Your task to perform on an android device: empty trash in google photos Image 0: 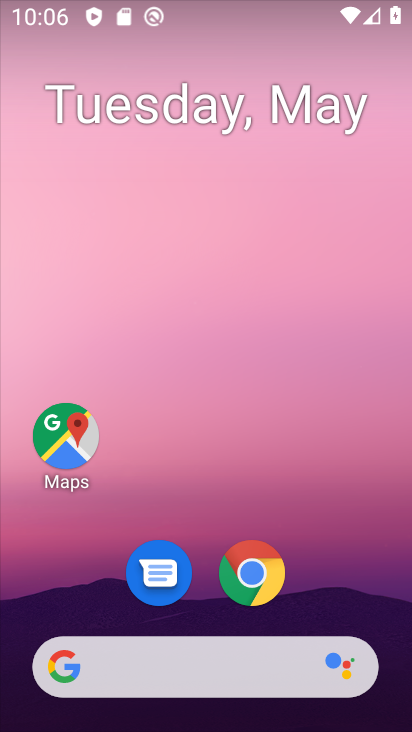
Step 0: drag from (131, 698) to (151, 7)
Your task to perform on an android device: empty trash in google photos Image 1: 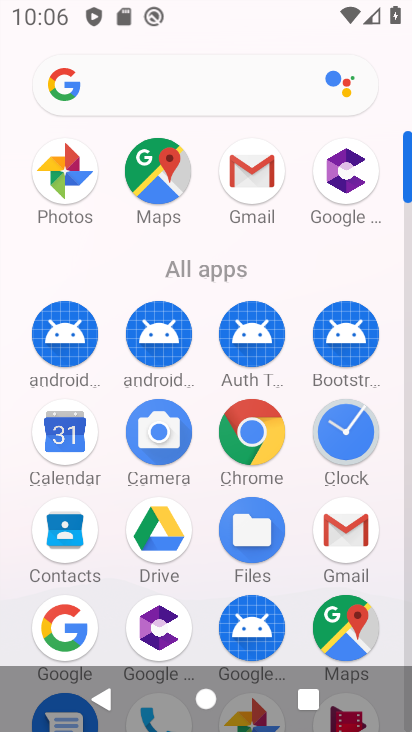
Step 1: drag from (208, 503) to (211, 250)
Your task to perform on an android device: empty trash in google photos Image 2: 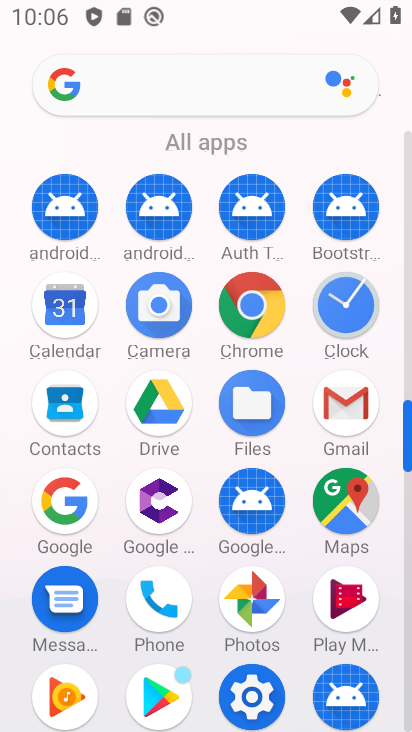
Step 2: click (248, 602)
Your task to perform on an android device: empty trash in google photos Image 3: 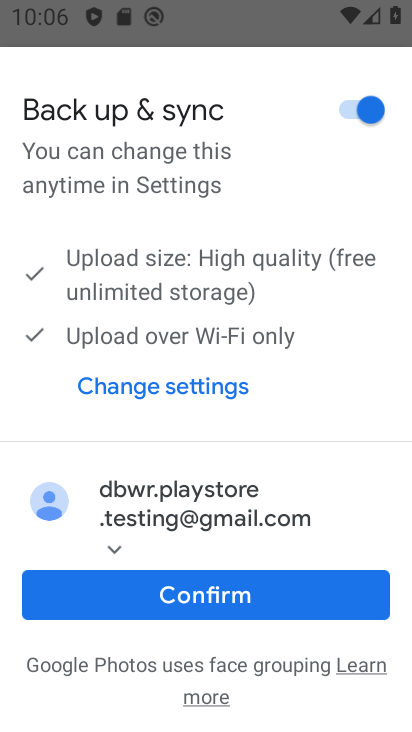
Step 3: click (149, 591)
Your task to perform on an android device: empty trash in google photos Image 4: 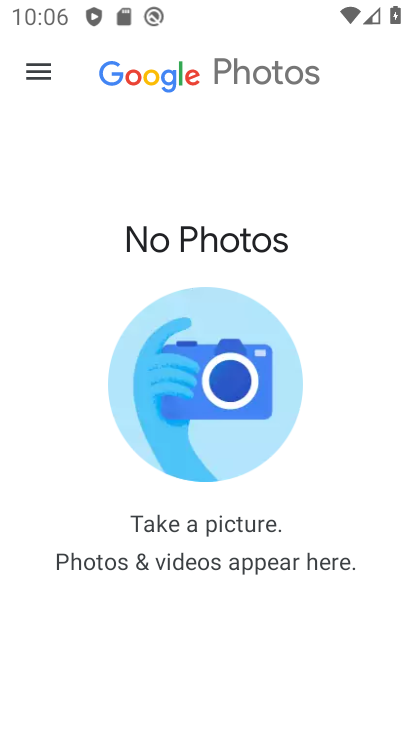
Step 4: click (43, 81)
Your task to perform on an android device: empty trash in google photos Image 5: 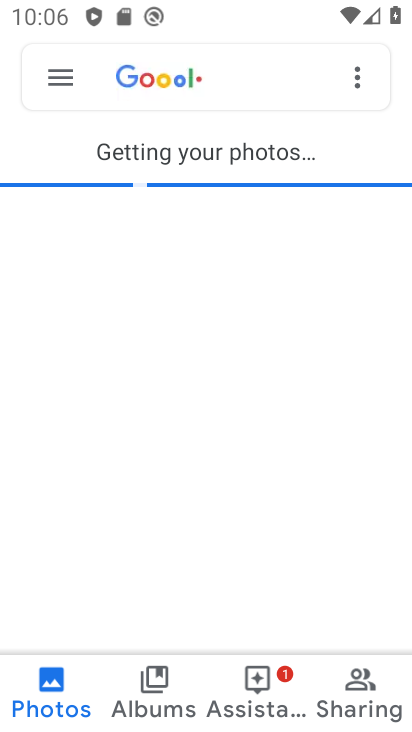
Step 5: click (52, 89)
Your task to perform on an android device: empty trash in google photos Image 6: 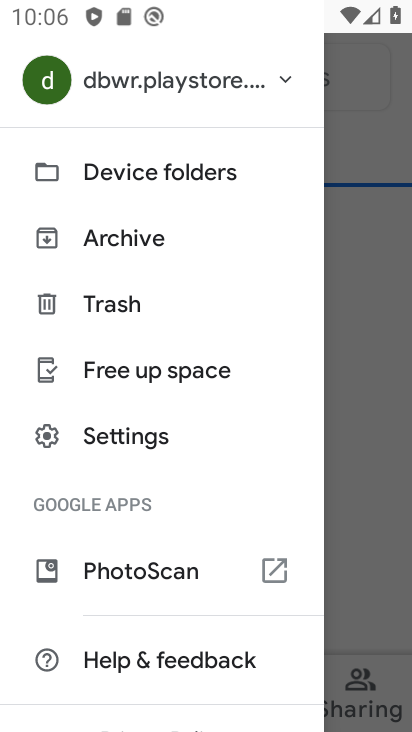
Step 6: click (115, 319)
Your task to perform on an android device: empty trash in google photos Image 7: 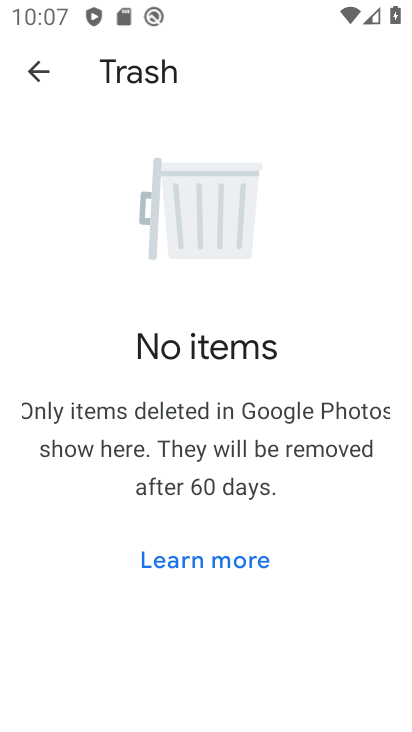
Step 7: task complete